Your task to perform on an android device: Search for rayovac triple a on costco.com, select the first entry, add it to the cart, then select checkout. Image 0: 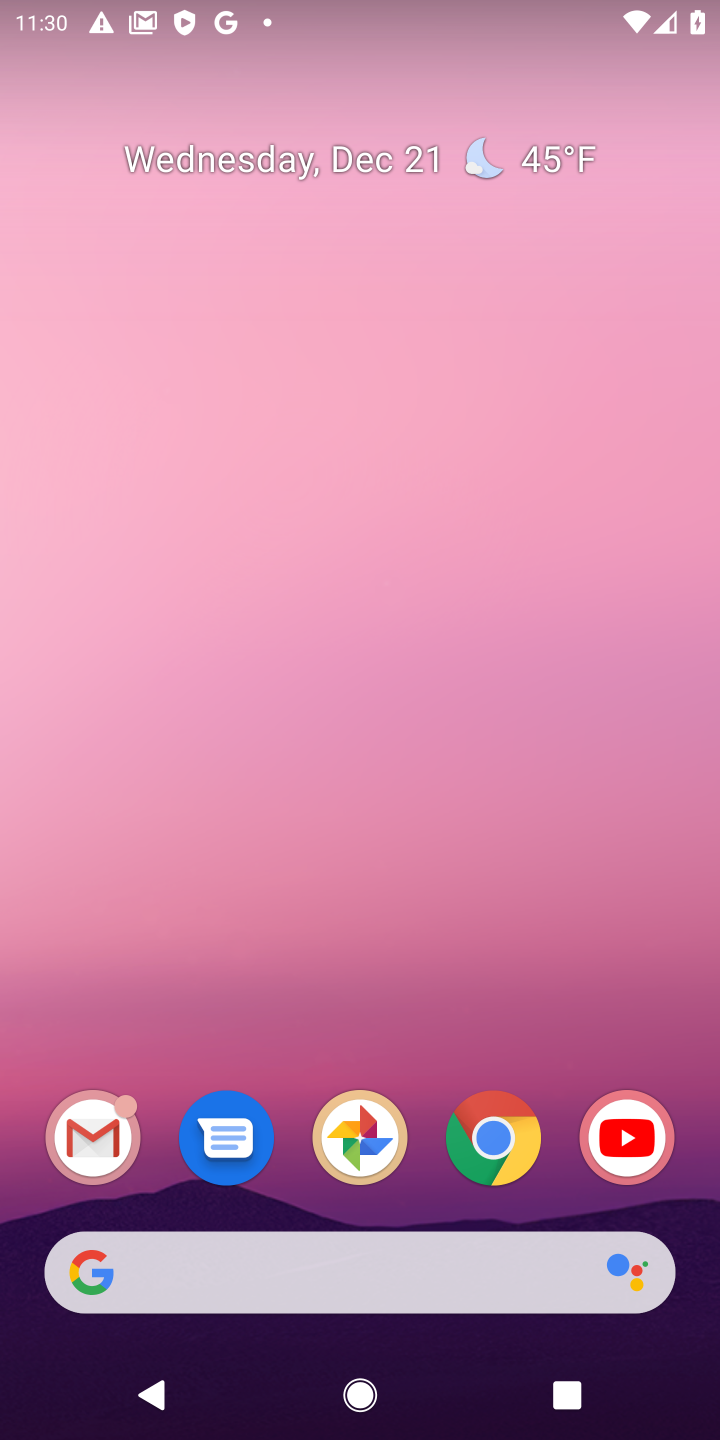
Step 0: click (499, 1139)
Your task to perform on an android device: Search for rayovac triple a on costco.com, select the first entry, add it to the cart, then select checkout. Image 1: 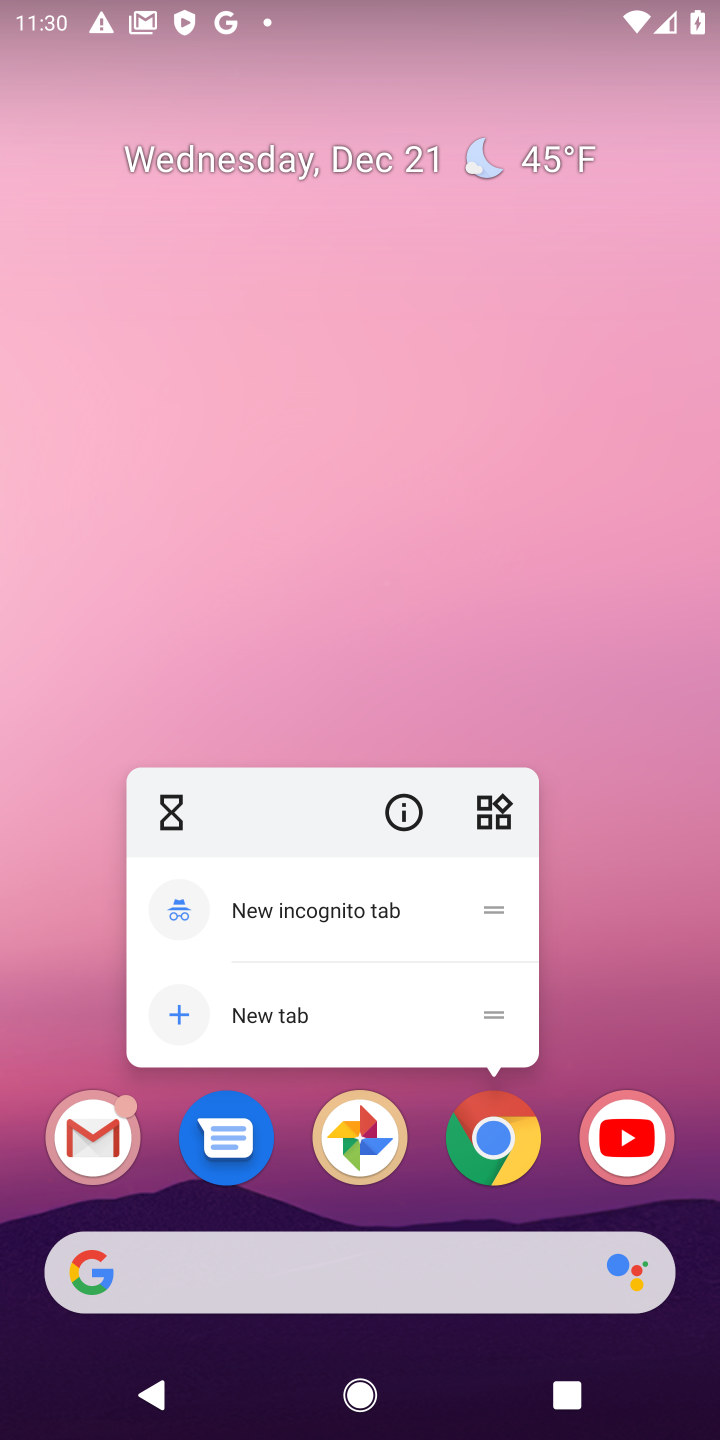
Step 1: click (499, 1139)
Your task to perform on an android device: Search for rayovac triple a on costco.com, select the first entry, add it to the cart, then select checkout. Image 2: 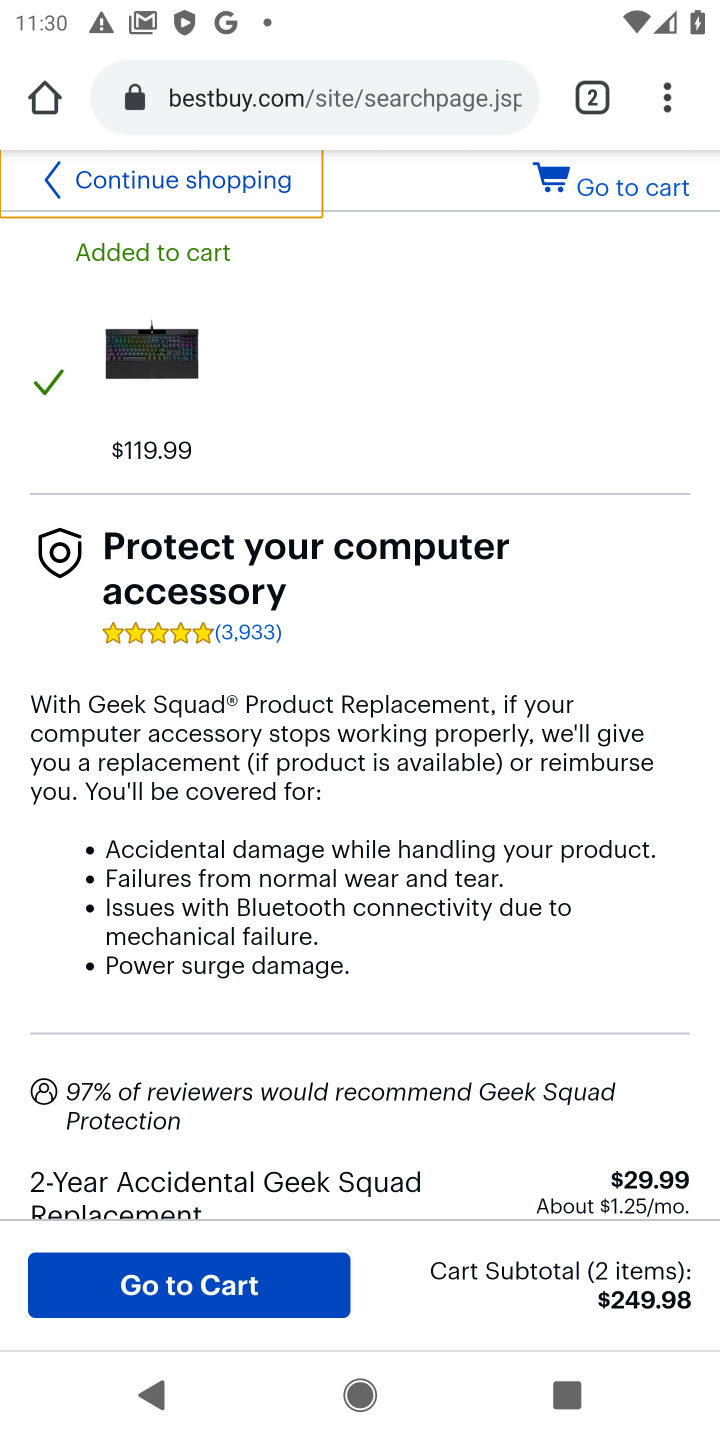
Step 2: click (235, 97)
Your task to perform on an android device: Search for rayovac triple a on costco.com, select the first entry, add it to the cart, then select checkout. Image 3: 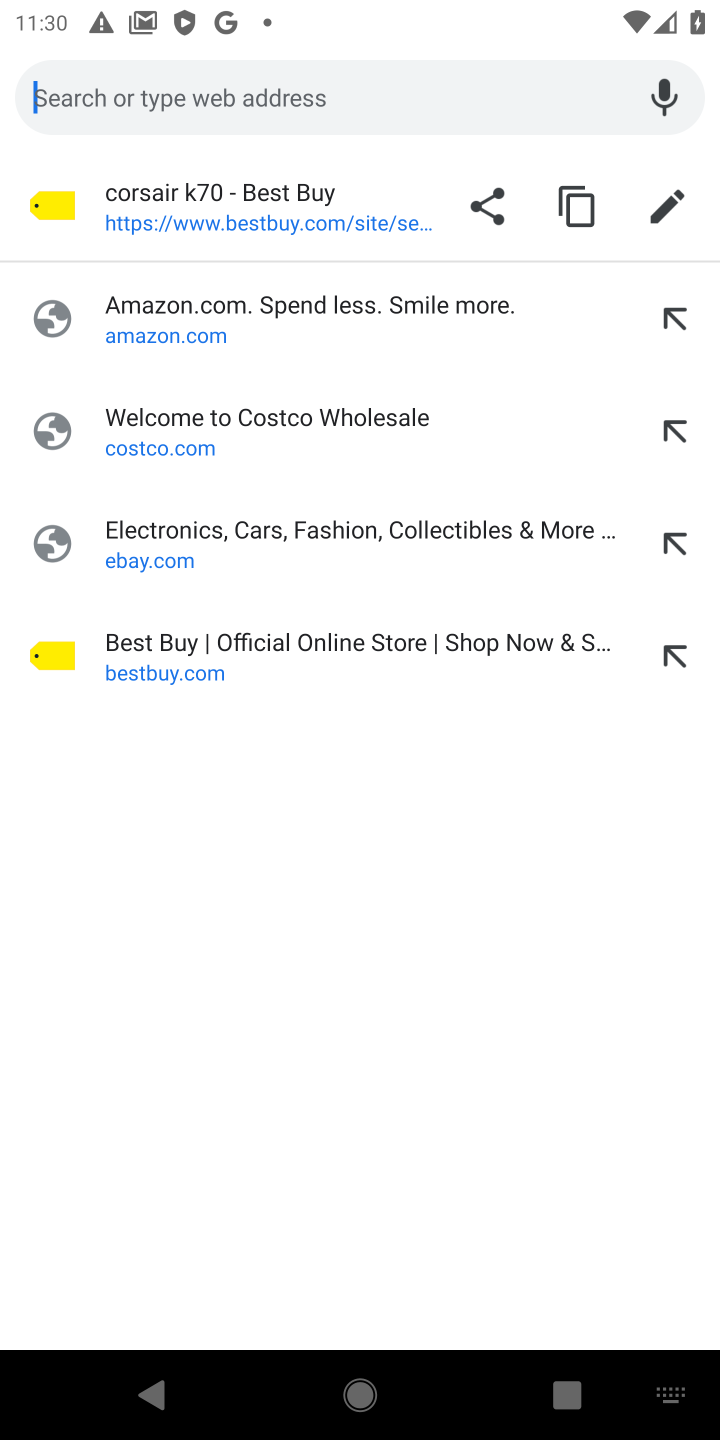
Step 3: click (169, 429)
Your task to perform on an android device: Search for rayovac triple a on costco.com, select the first entry, add it to the cart, then select checkout. Image 4: 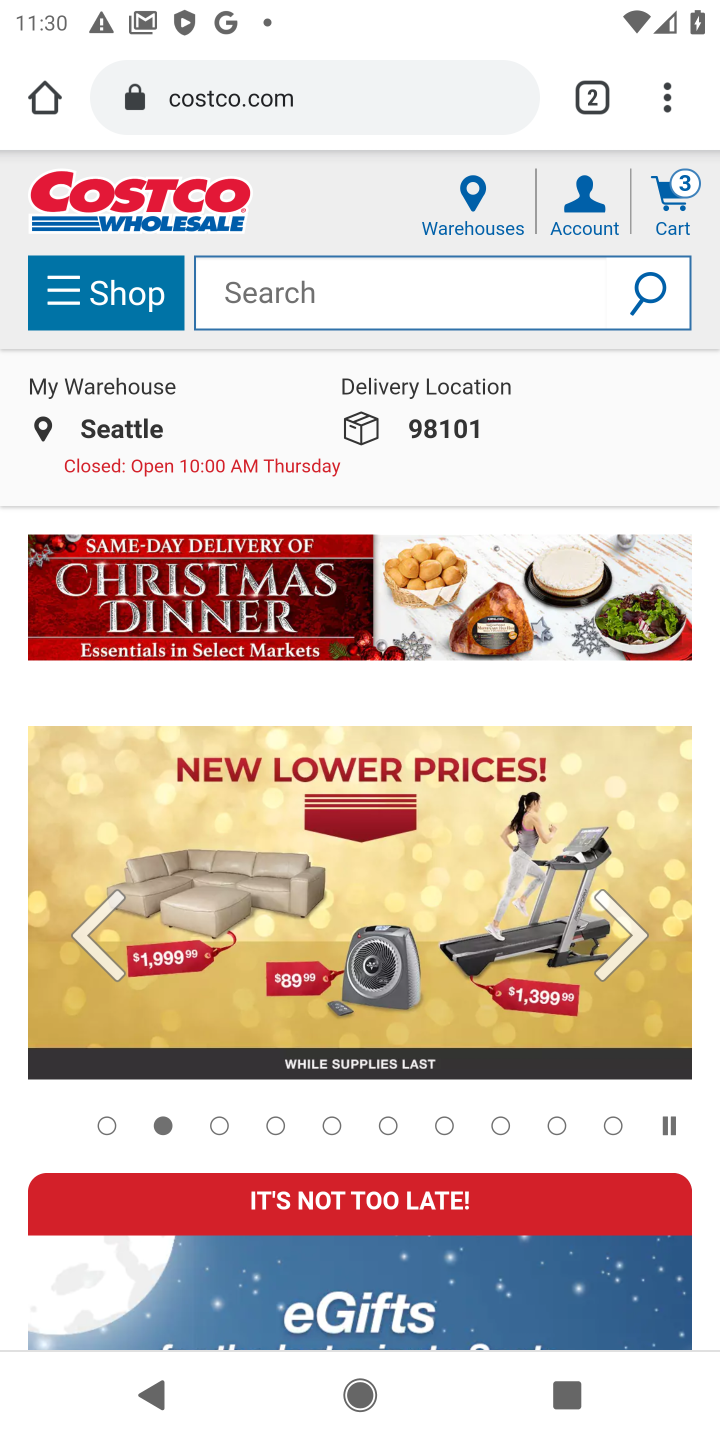
Step 4: click (292, 310)
Your task to perform on an android device: Search for rayovac triple a on costco.com, select the first entry, add it to the cart, then select checkout. Image 5: 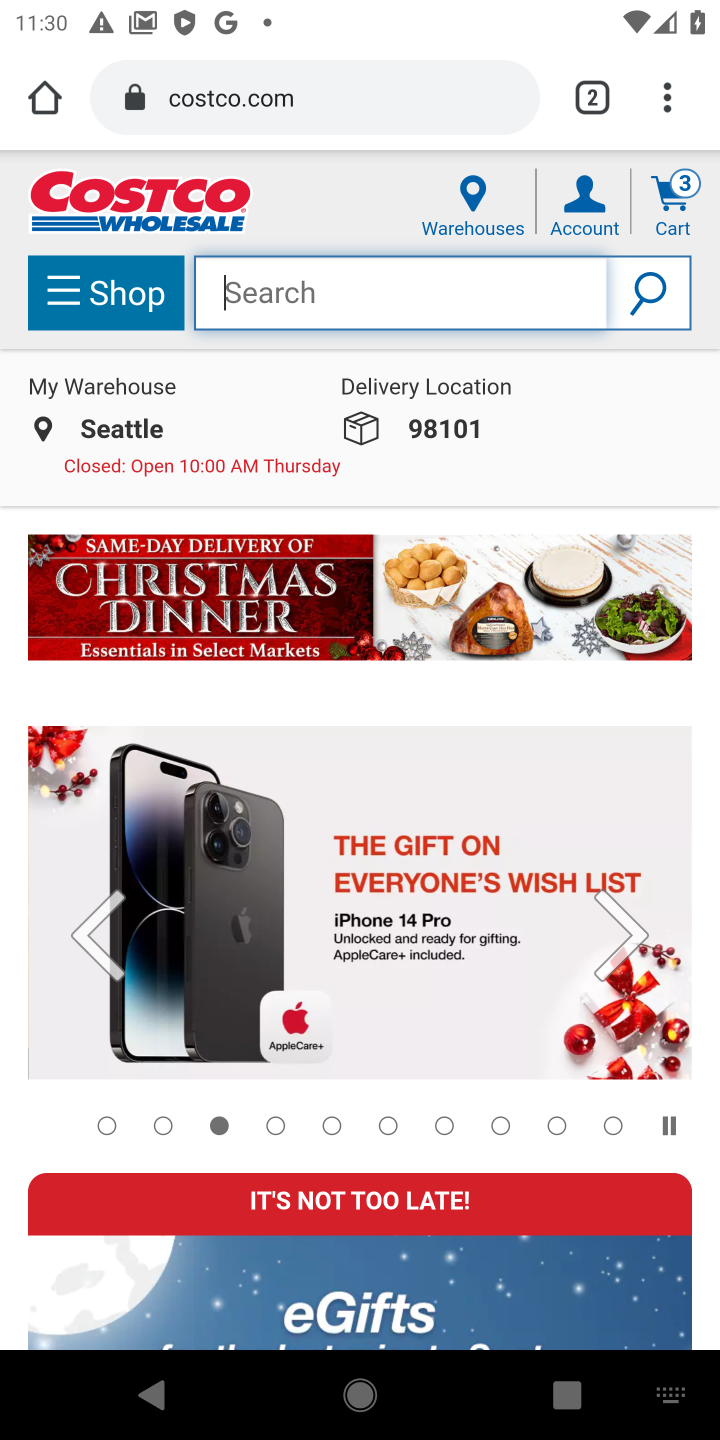
Step 5: type " rayovac triple a"
Your task to perform on an android device: Search for rayovac triple a on costco.com, select the first entry, add it to the cart, then select checkout. Image 6: 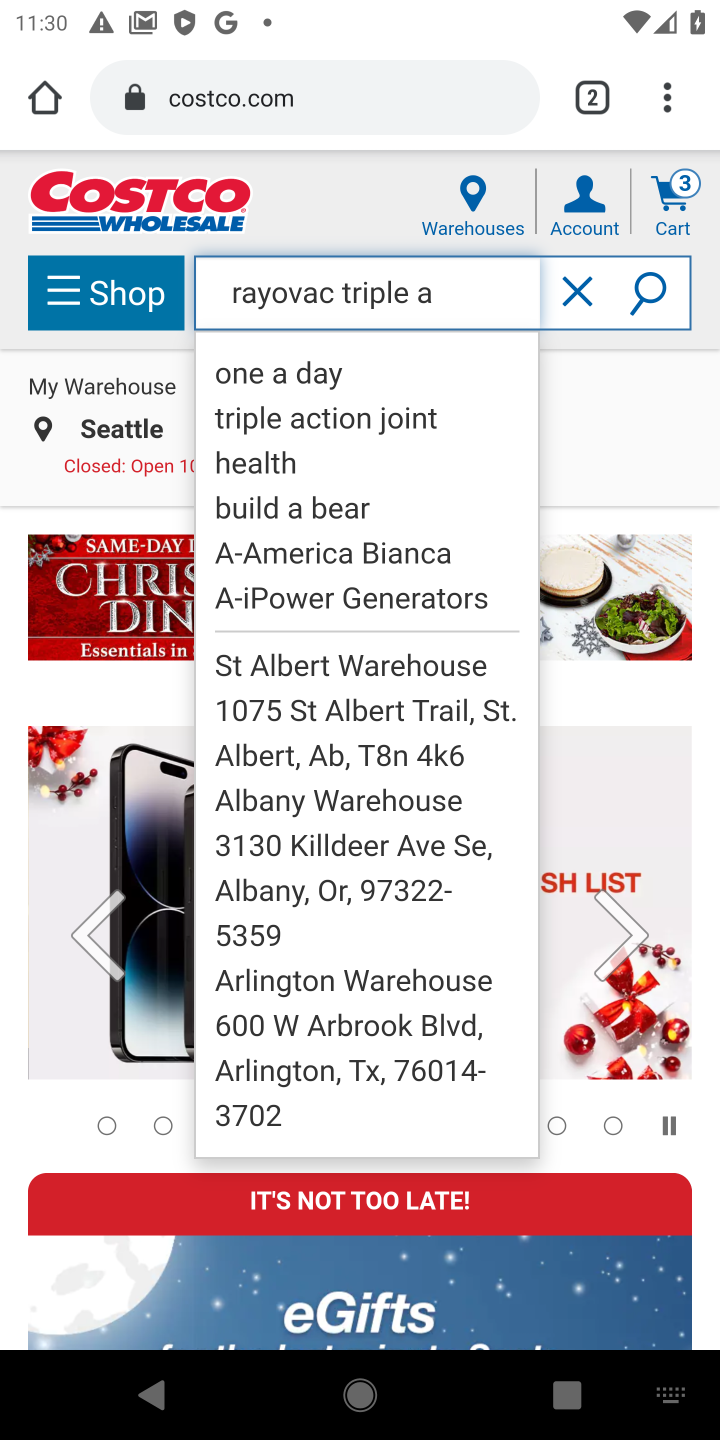
Step 6: click (654, 296)
Your task to perform on an android device: Search for rayovac triple a on costco.com, select the first entry, add it to the cart, then select checkout. Image 7: 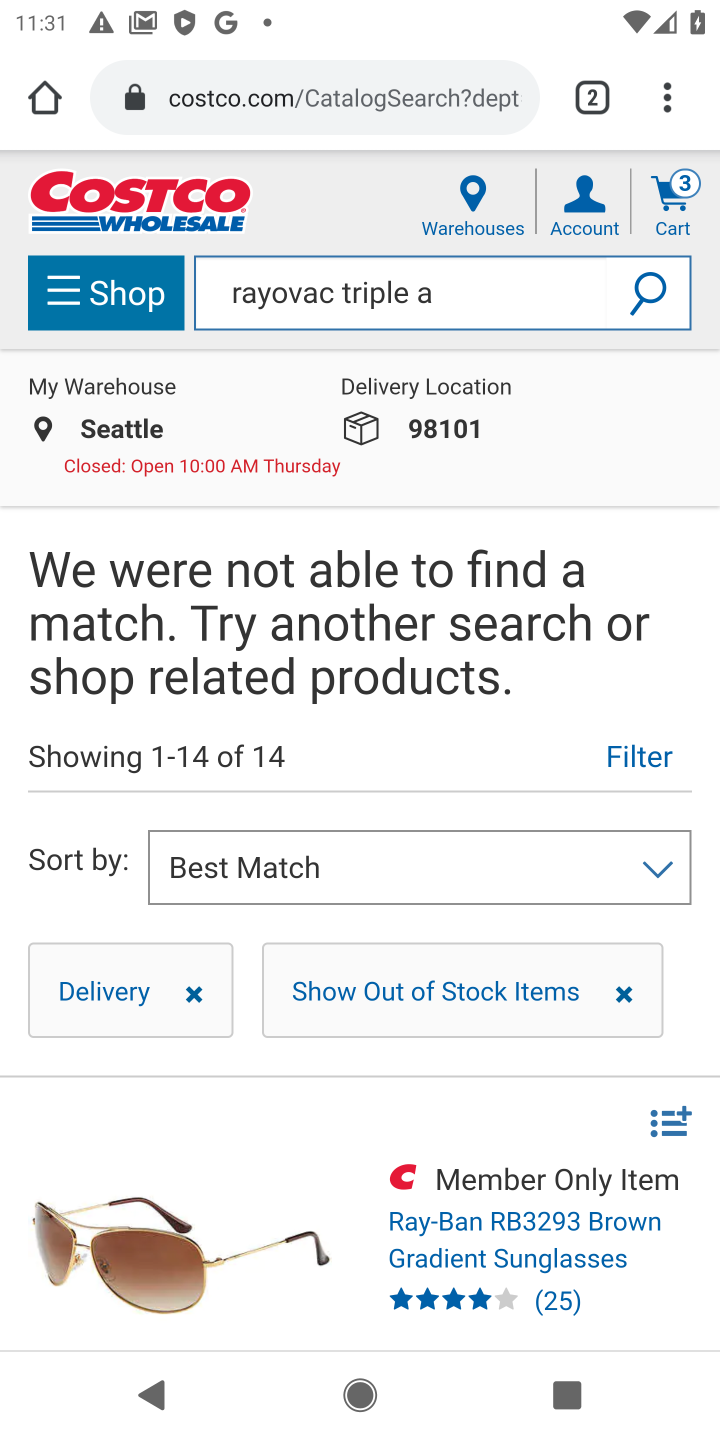
Step 7: task complete